Your task to perform on an android device: install app "Chime – Mobile Banking" Image 0: 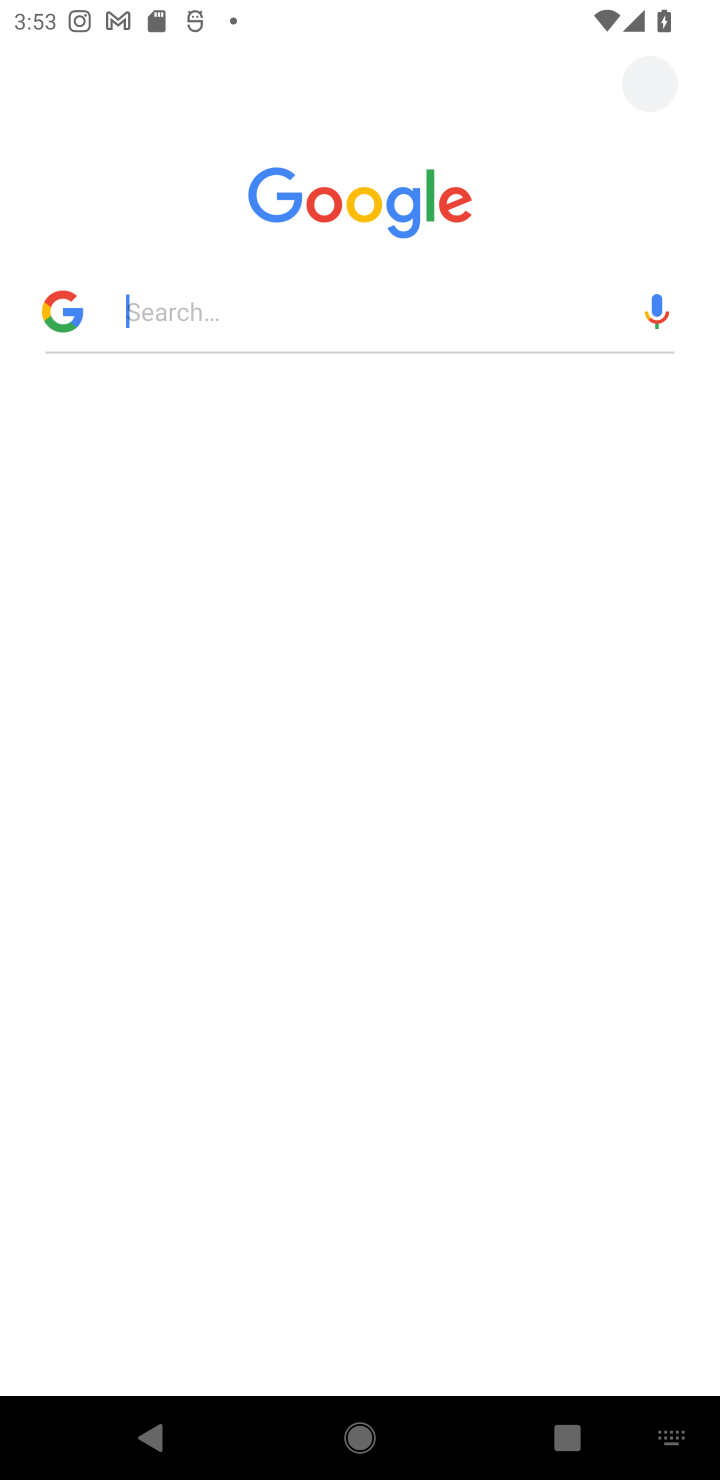
Step 0: press home button
Your task to perform on an android device: install app "Chime – Mobile Banking" Image 1: 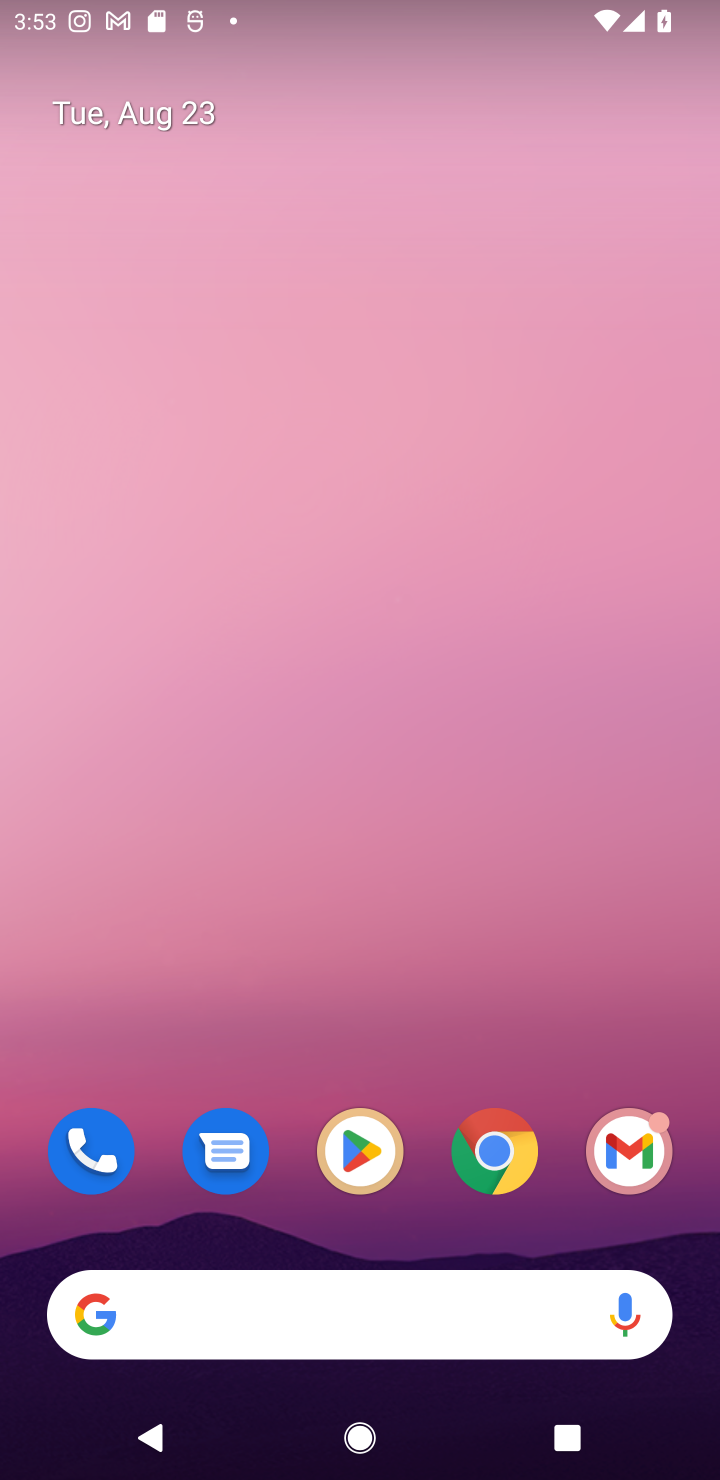
Step 1: click (354, 1146)
Your task to perform on an android device: install app "Chime – Mobile Banking" Image 2: 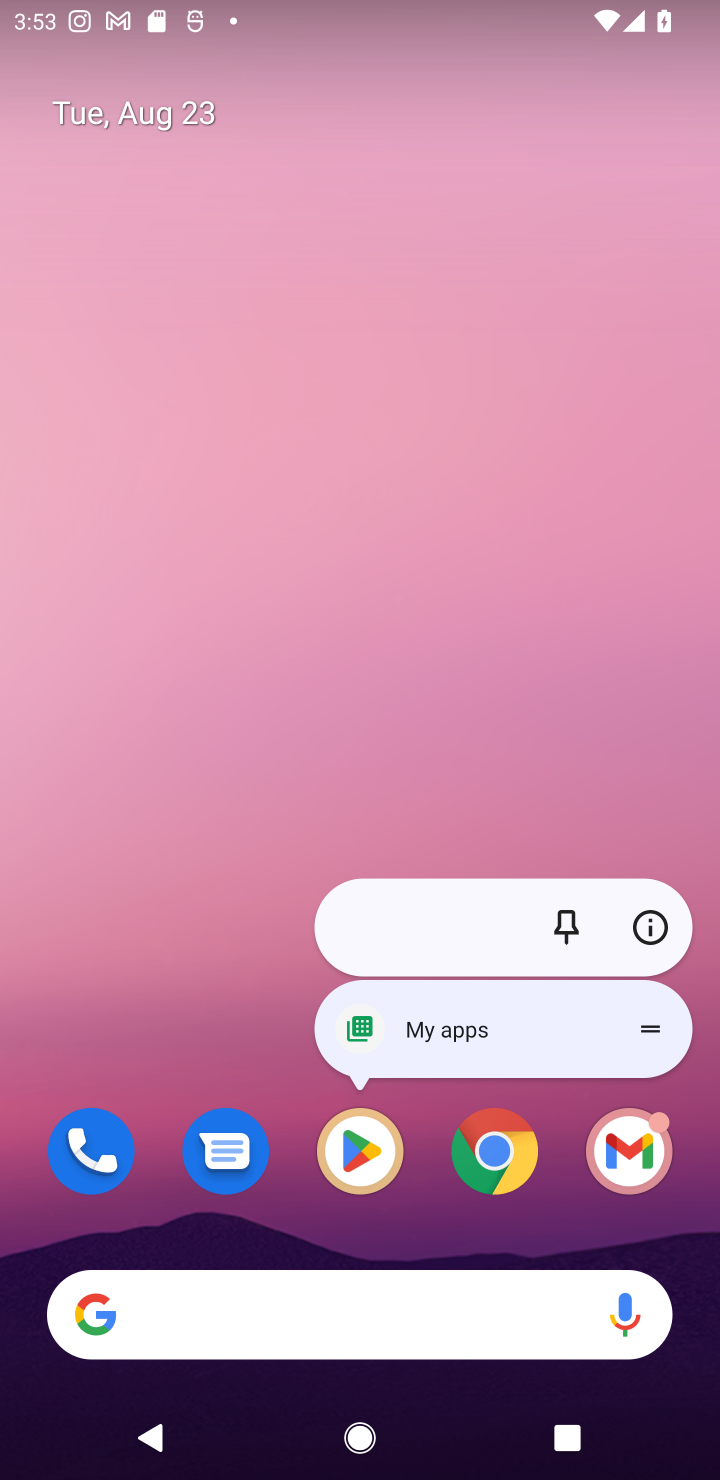
Step 2: click (354, 1146)
Your task to perform on an android device: install app "Chime – Mobile Banking" Image 3: 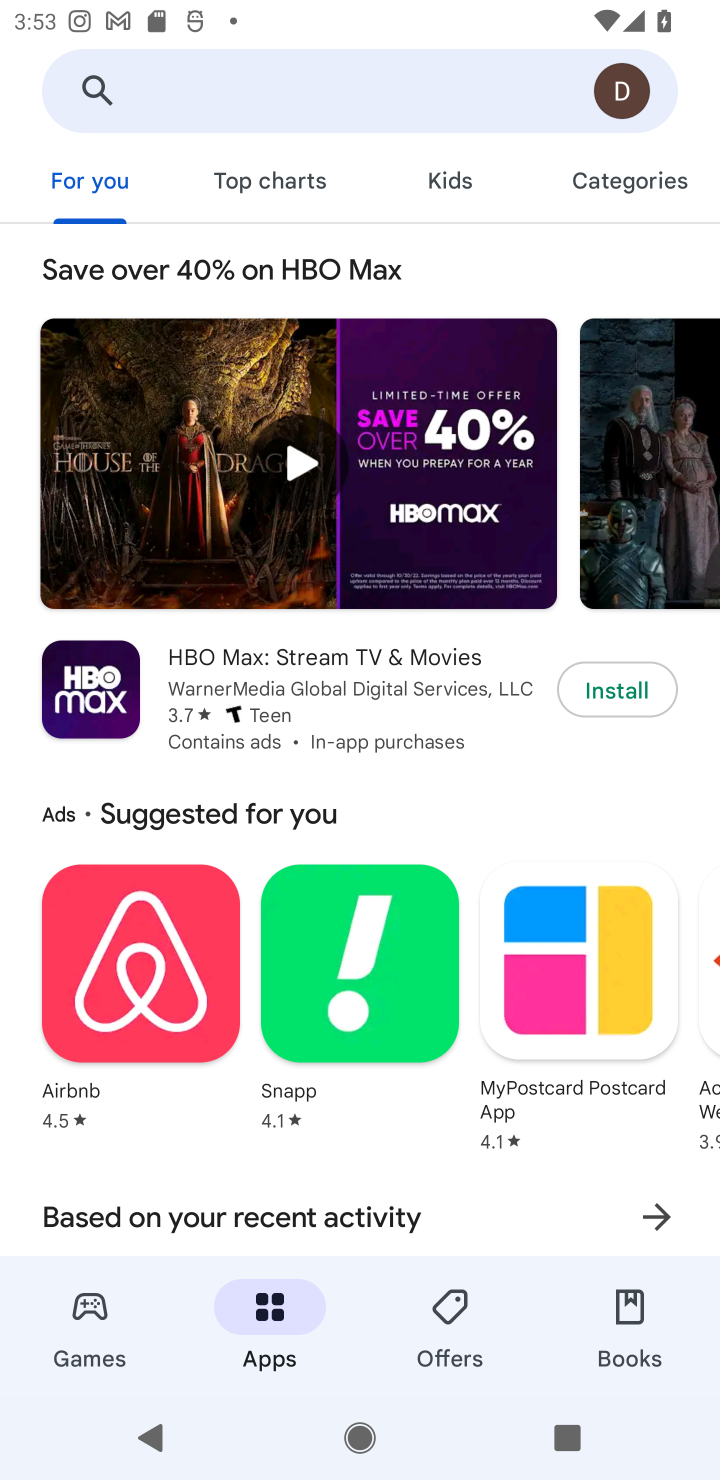
Step 3: click (395, 85)
Your task to perform on an android device: install app "Chime – Mobile Banking" Image 4: 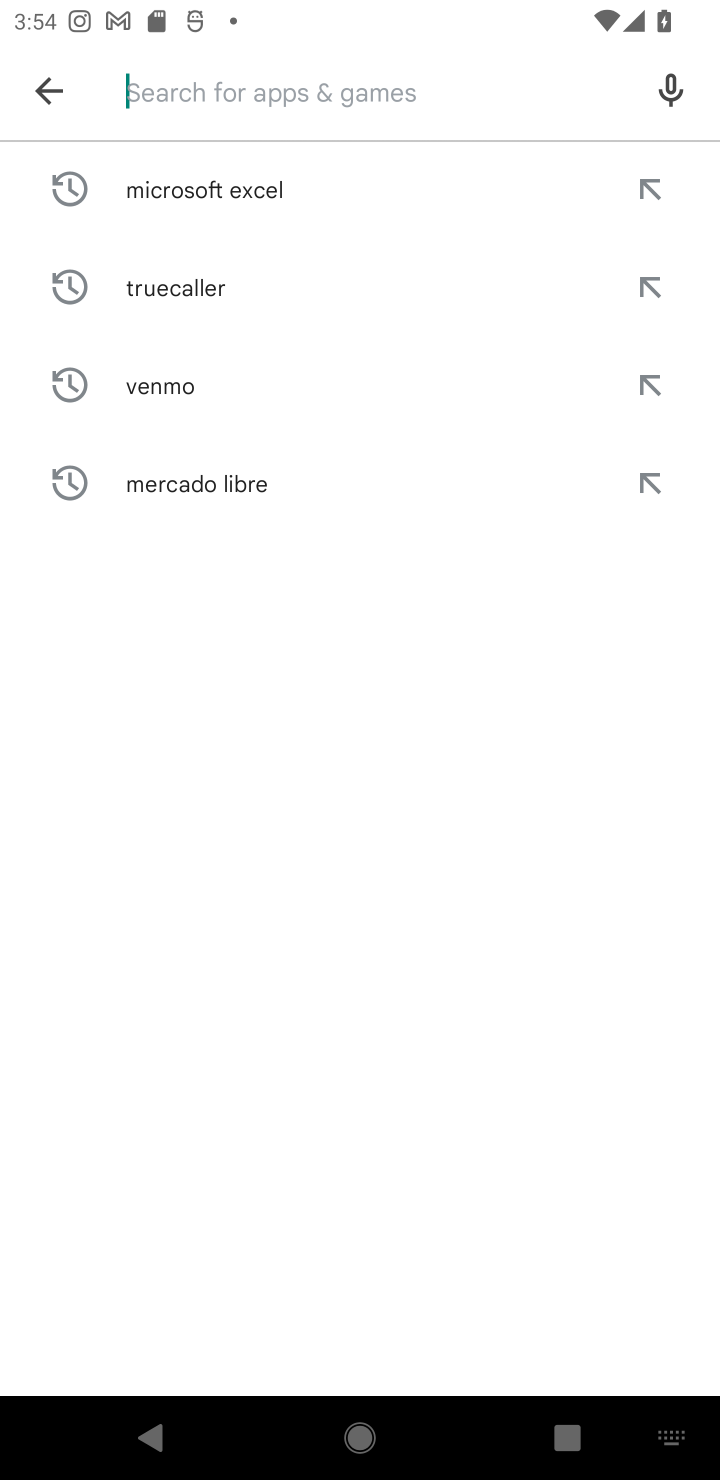
Step 4: type "Chime Mobile Banking"
Your task to perform on an android device: install app "Chime – Mobile Banking" Image 5: 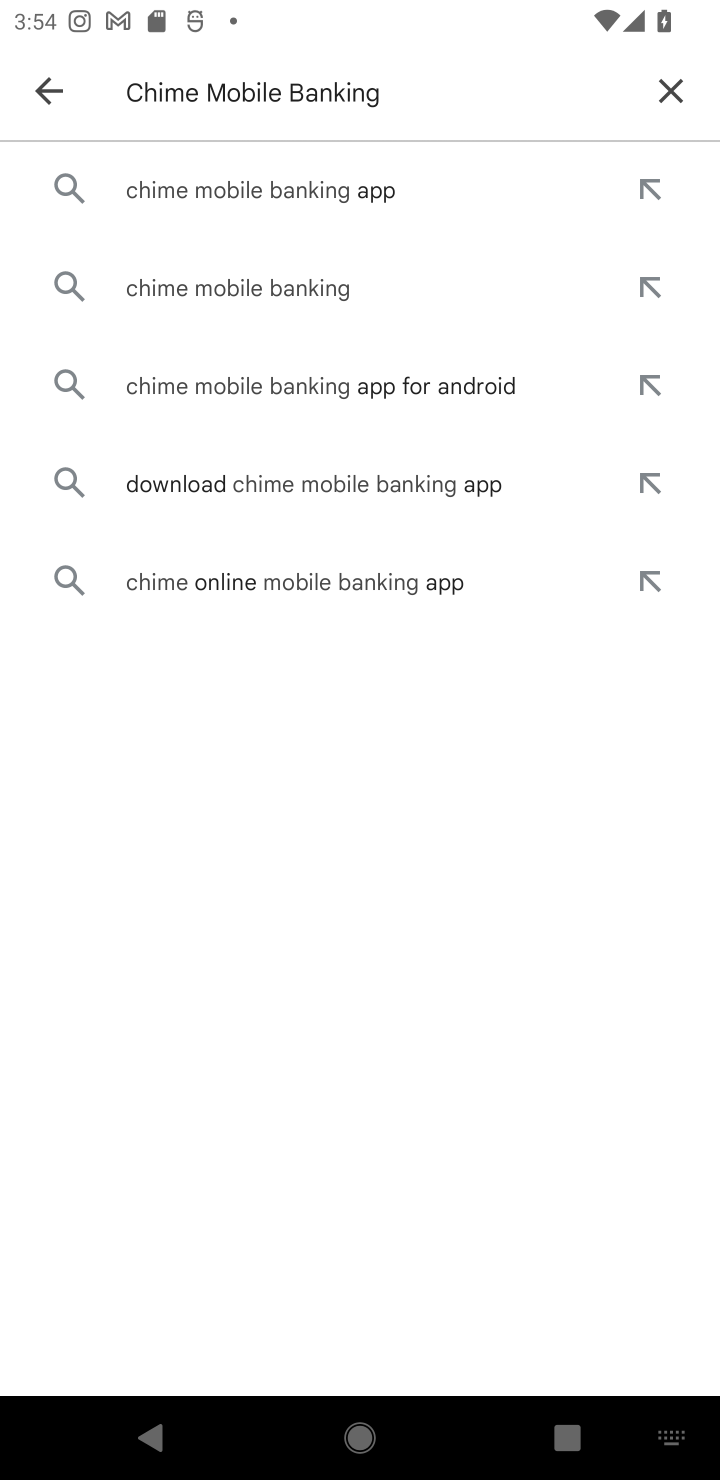
Step 5: click (313, 181)
Your task to perform on an android device: install app "Chime – Mobile Banking" Image 6: 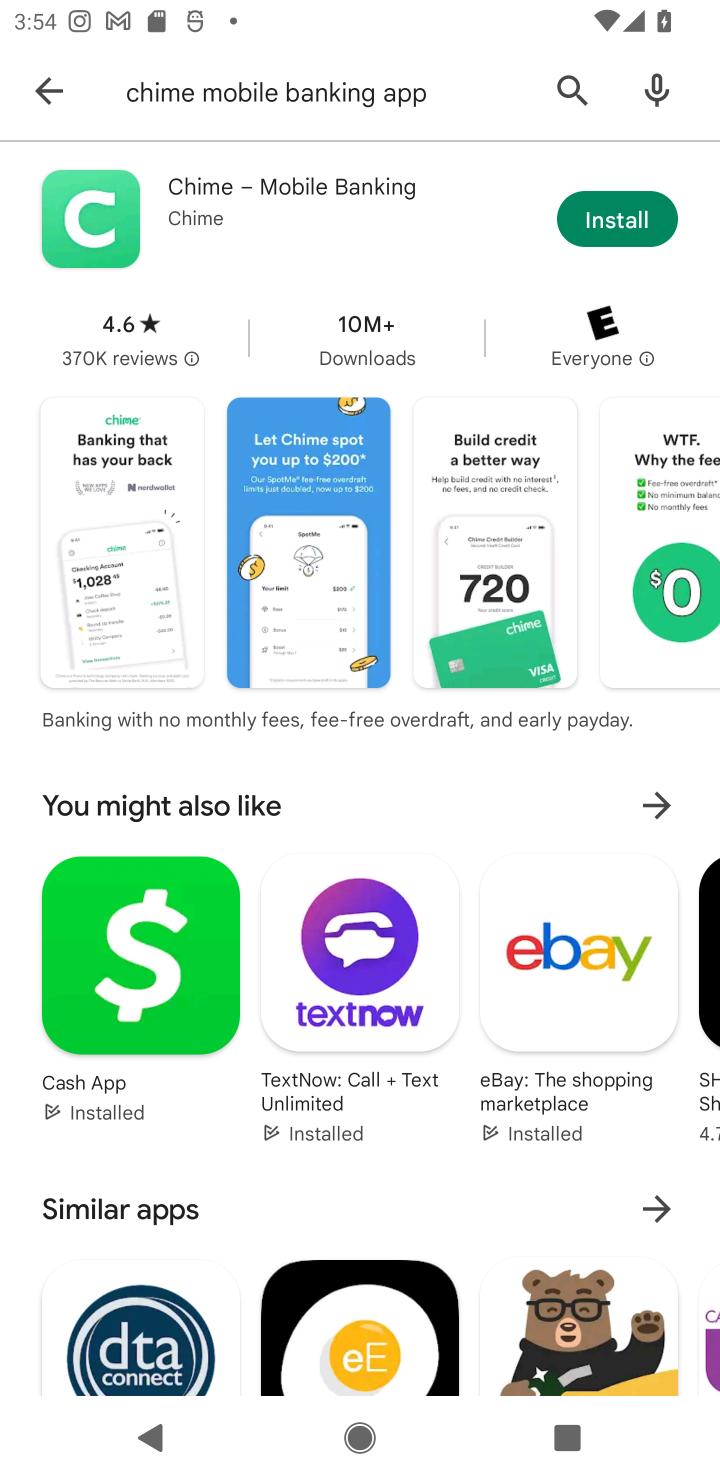
Step 6: click (584, 215)
Your task to perform on an android device: install app "Chime – Mobile Banking" Image 7: 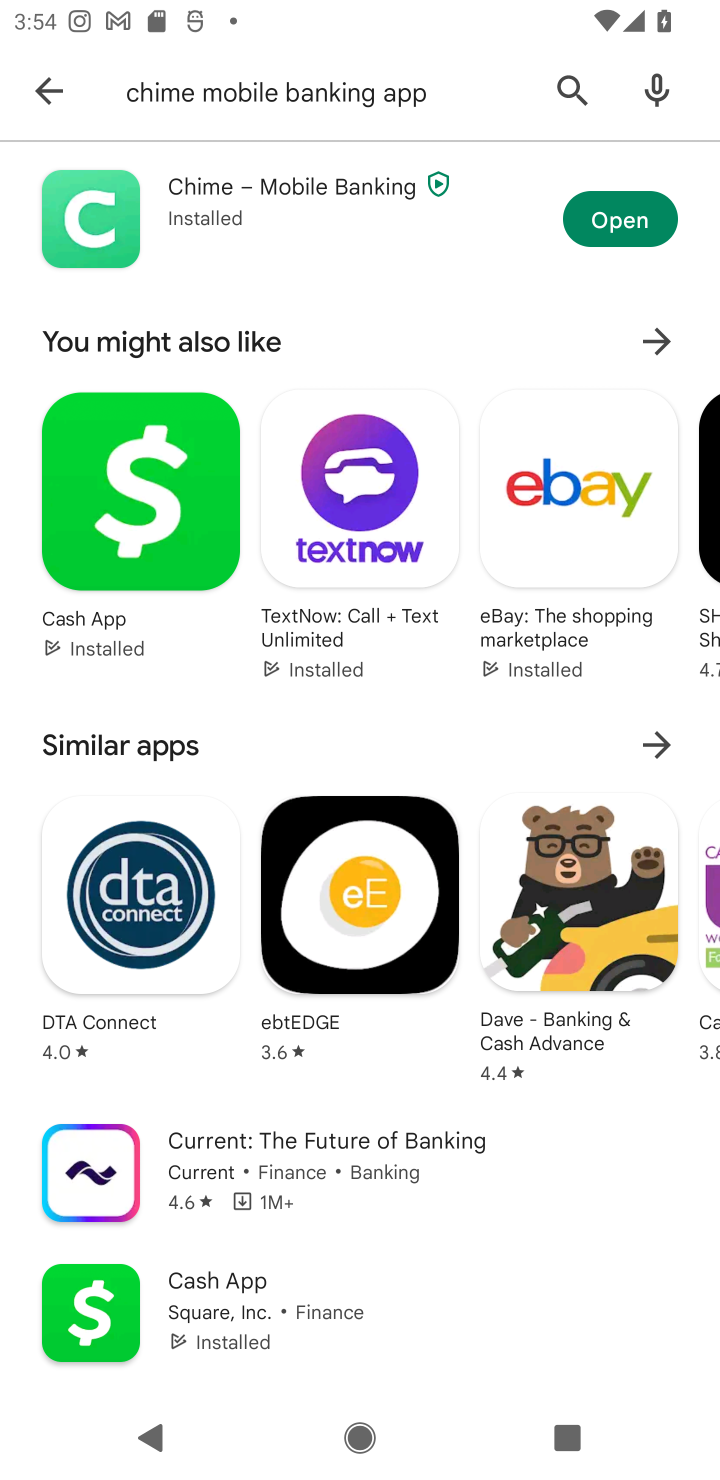
Step 7: task complete